Your task to perform on an android device: Open privacy settings Image 0: 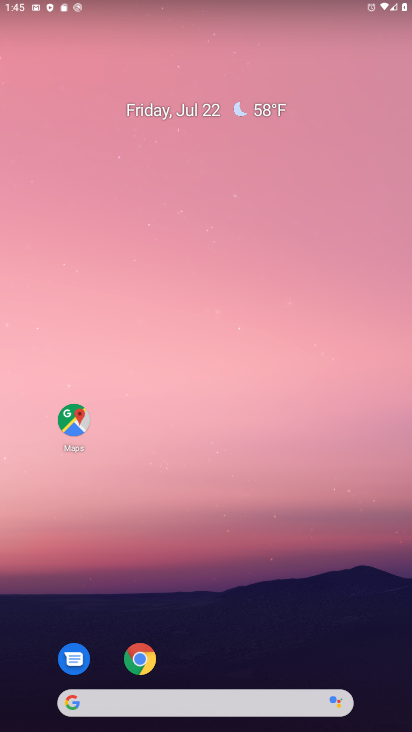
Step 0: drag from (207, 676) to (179, 48)
Your task to perform on an android device: Open privacy settings Image 1: 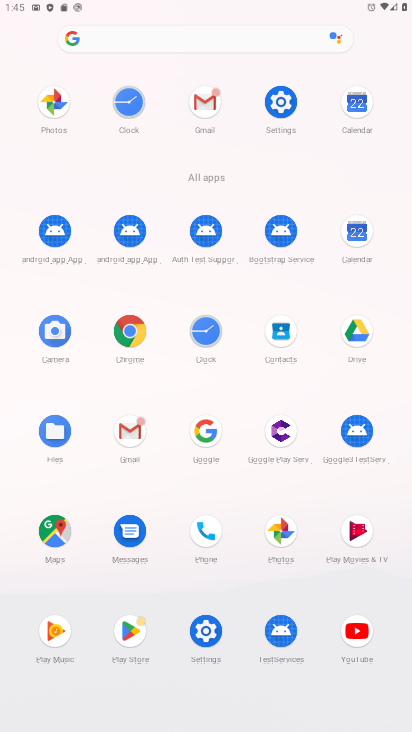
Step 1: click (276, 96)
Your task to perform on an android device: Open privacy settings Image 2: 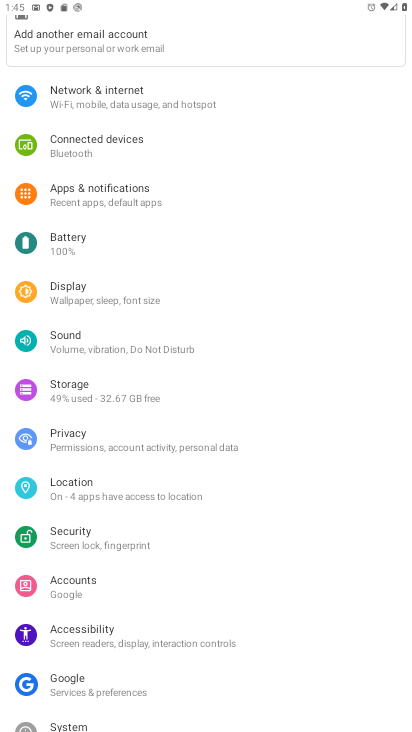
Step 2: click (90, 447)
Your task to perform on an android device: Open privacy settings Image 3: 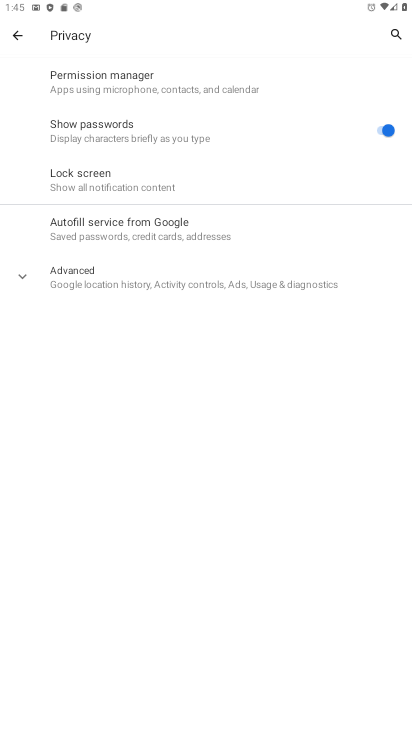
Step 3: click (69, 292)
Your task to perform on an android device: Open privacy settings Image 4: 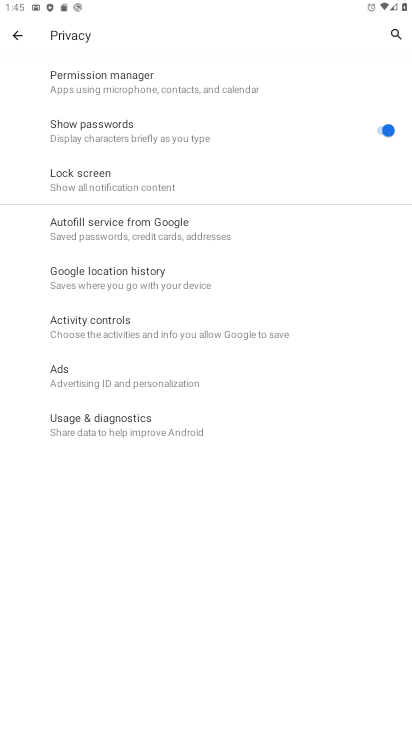
Step 4: task complete